Your task to perform on an android device: Go to Google Image 0: 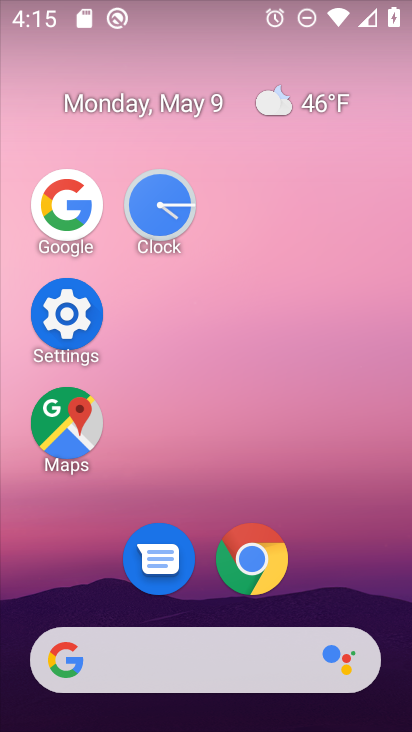
Step 0: drag from (318, 599) to (338, 145)
Your task to perform on an android device: Go to Google Image 1: 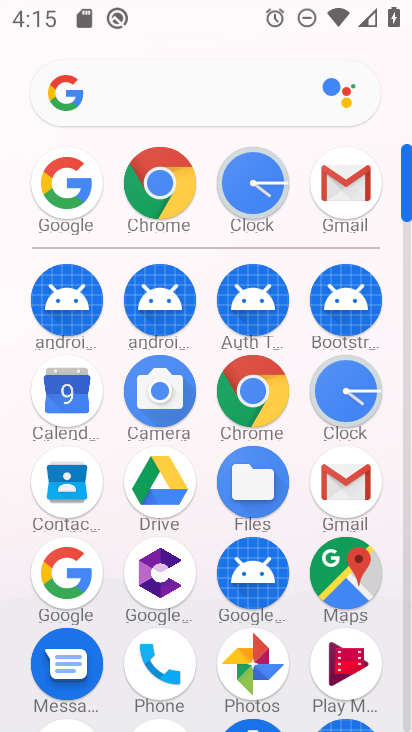
Step 1: click (50, 185)
Your task to perform on an android device: Go to Google Image 2: 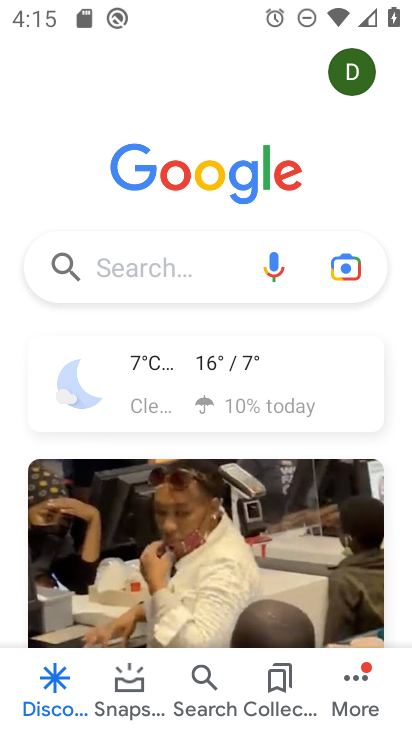
Step 2: task complete